Your task to perform on an android device: manage bookmarks in the chrome app Image 0: 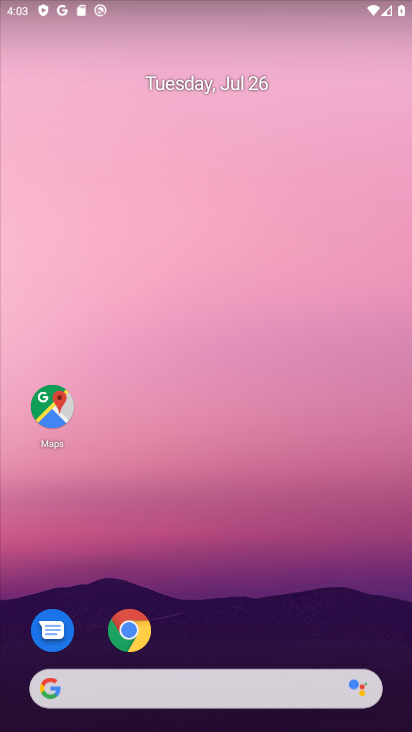
Step 0: drag from (291, 548) to (315, 65)
Your task to perform on an android device: manage bookmarks in the chrome app Image 1: 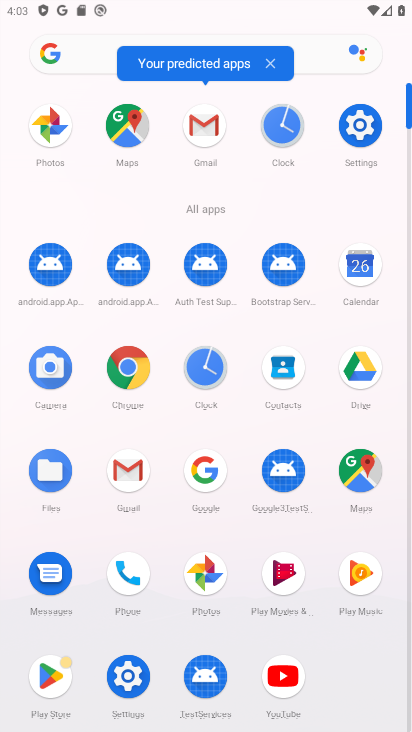
Step 1: click (131, 367)
Your task to perform on an android device: manage bookmarks in the chrome app Image 2: 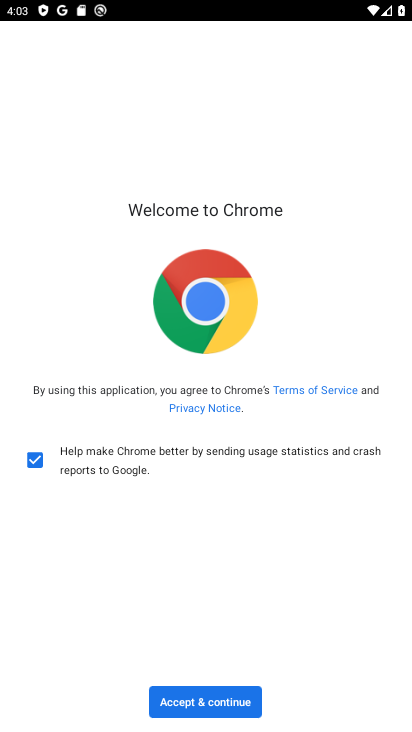
Step 2: click (233, 700)
Your task to perform on an android device: manage bookmarks in the chrome app Image 3: 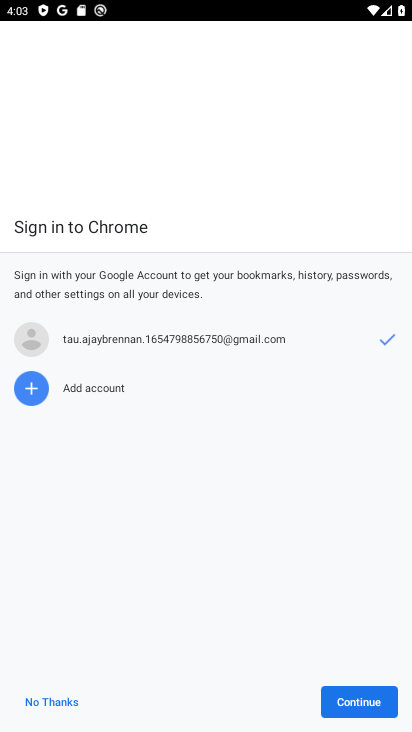
Step 3: click (348, 697)
Your task to perform on an android device: manage bookmarks in the chrome app Image 4: 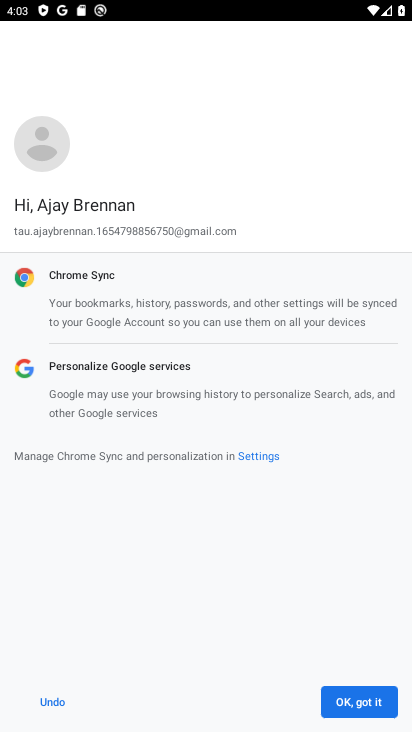
Step 4: click (348, 697)
Your task to perform on an android device: manage bookmarks in the chrome app Image 5: 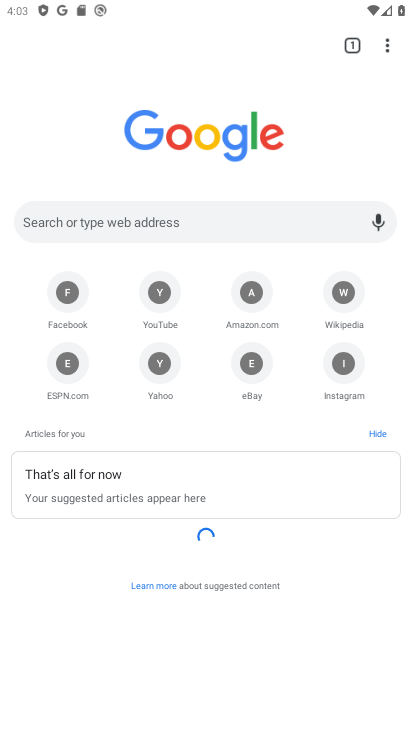
Step 5: drag from (394, 41) to (270, 386)
Your task to perform on an android device: manage bookmarks in the chrome app Image 6: 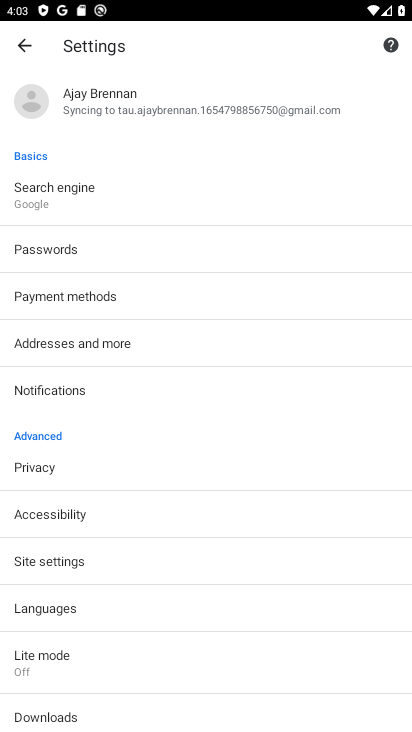
Step 6: click (24, 45)
Your task to perform on an android device: manage bookmarks in the chrome app Image 7: 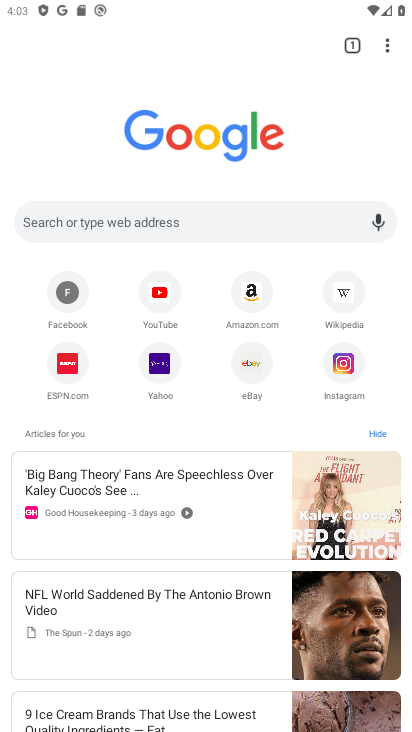
Step 7: drag from (389, 44) to (239, 178)
Your task to perform on an android device: manage bookmarks in the chrome app Image 8: 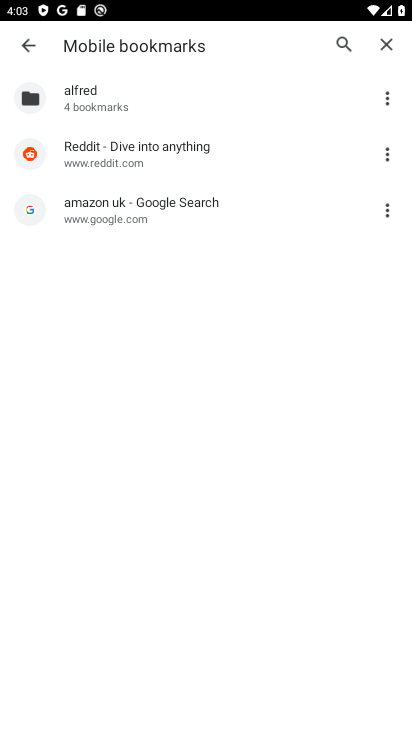
Step 8: click (384, 206)
Your task to perform on an android device: manage bookmarks in the chrome app Image 9: 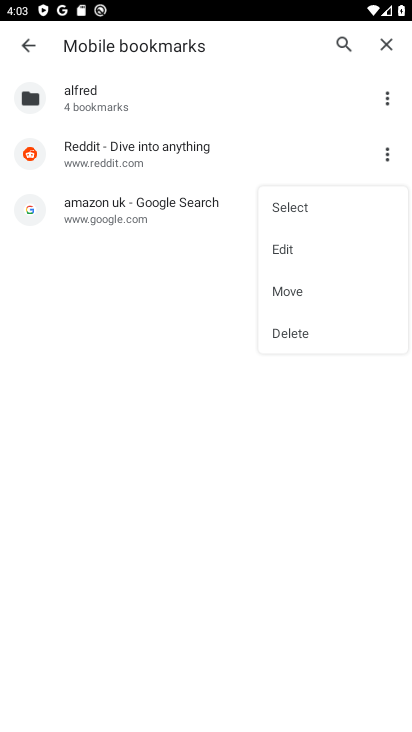
Step 9: click (296, 336)
Your task to perform on an android device: manage bookmarks in the chrome app Image 10: 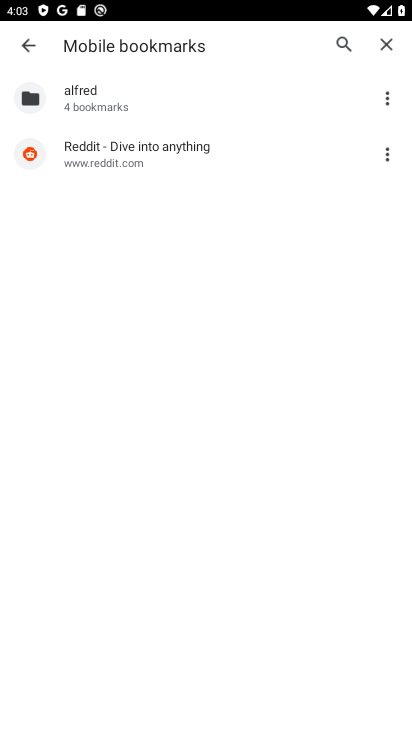
Step 10: task complete